Your task to perform on an android device: Go to Yahoo.com Image 0: 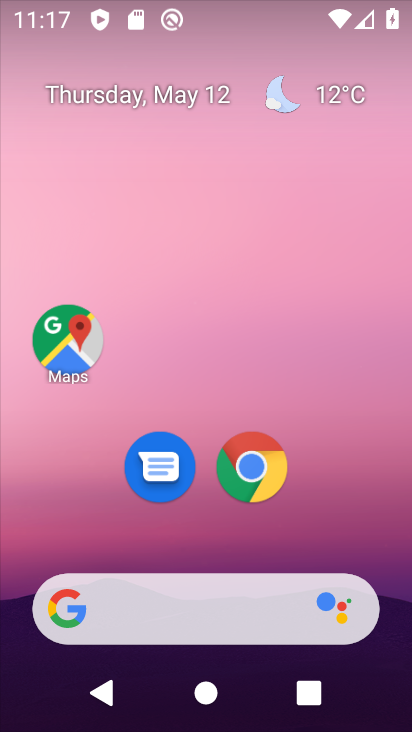
Step 0: drag from (343, 493) to (250, 11)
Your task to perform on an android device: Go to Yahoo.com Image 1: 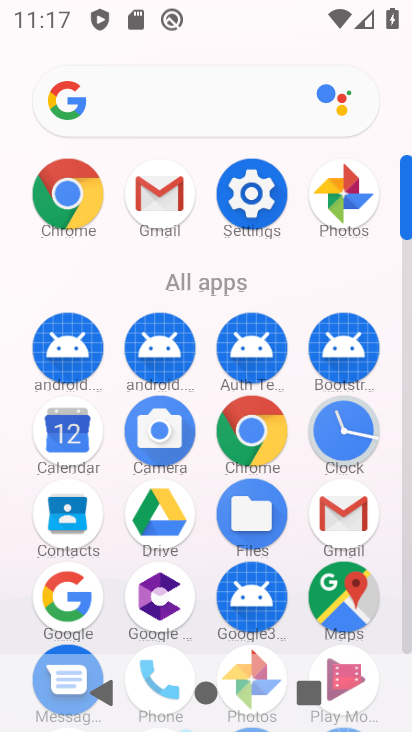
Step 1: drag from (3, 531) to (6, 276)
Your task to perform on an android device: Go to Yahoo.com Image 2: 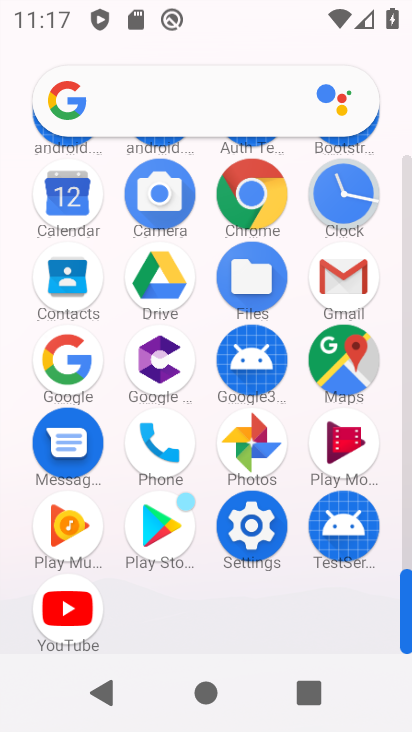
Step 2: click (248, 193)
Your task to perform on an android device: Go to Yahoo.com Image 3: 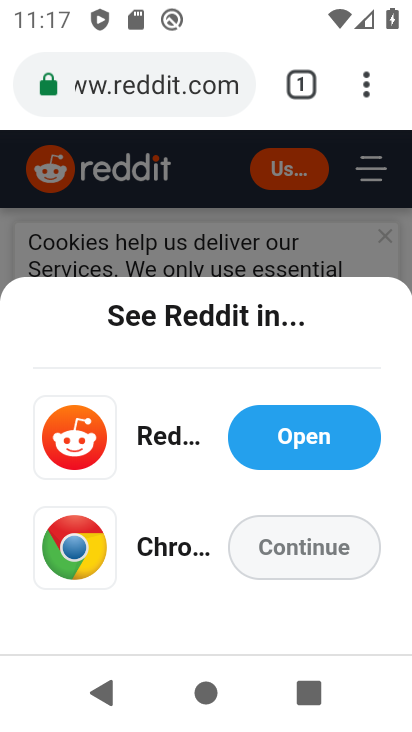
Step 3: click (179, 81)
Your task to perform on an android device: Go to Yahoo.com Image 4: 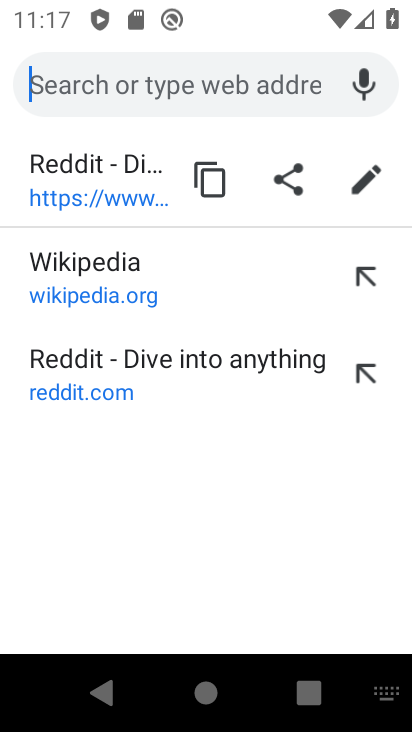
Step 4: type "Yahoo.com"
Your task to perform on an android device: Go to Yahoo.com Image 5: 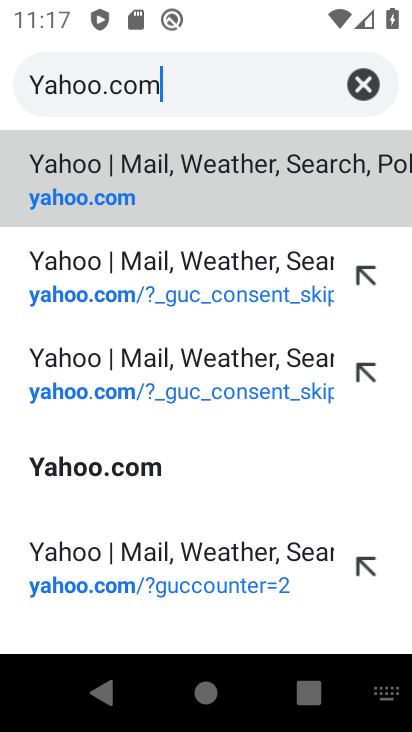
Step 5: type ""
Your task to perform on an android device: Go to Yahoo.com Image 6: 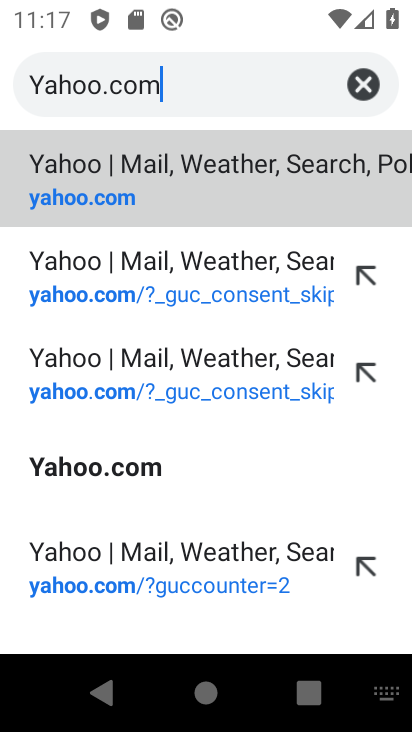
Step 6: click (233, 191)
Your task to perform on an android device: Go to Yahoo.com Image 7: 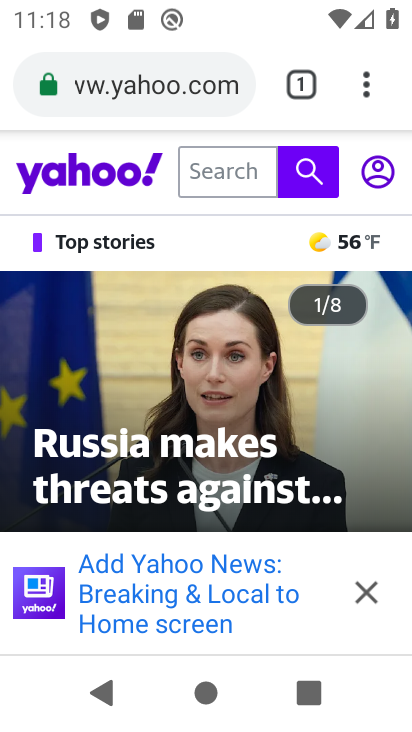
Step 7: task complete